Your task to perform on an android device: Open notification settings Image 0: 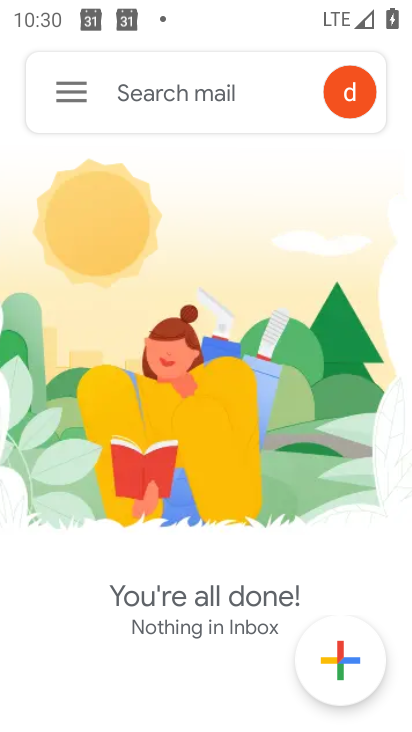
Step 0: press home button
Your task to perform on an android device: Open notification settings Image 1: 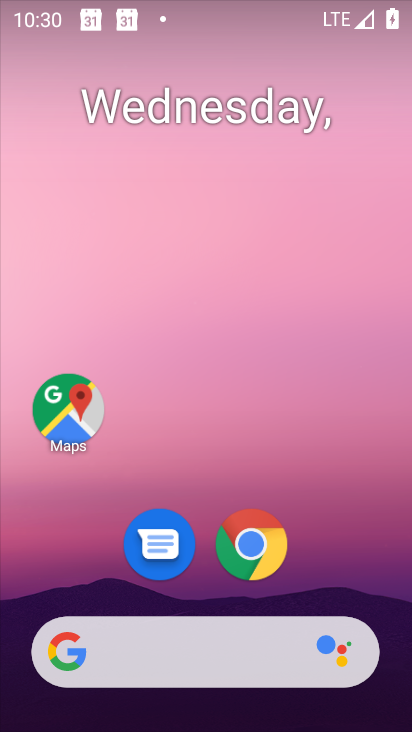
Step 1: drag from (332, 578) to (346, 145)
Your task to perform on an android device: Open notification settings Image 2: 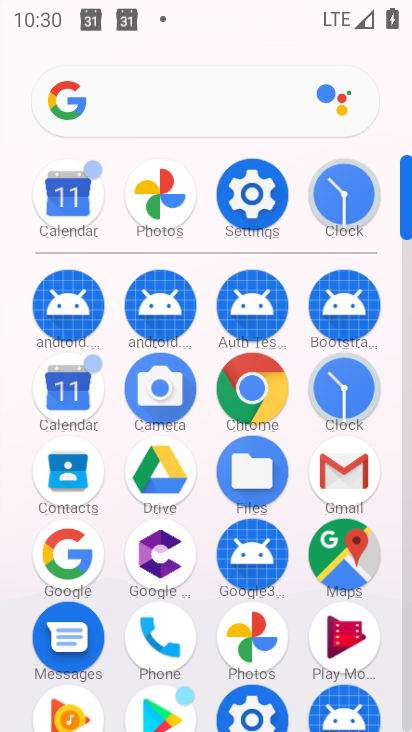
Step 2: click (240, 209)
Your task to perform on an android device: Open notification settings Image 3: 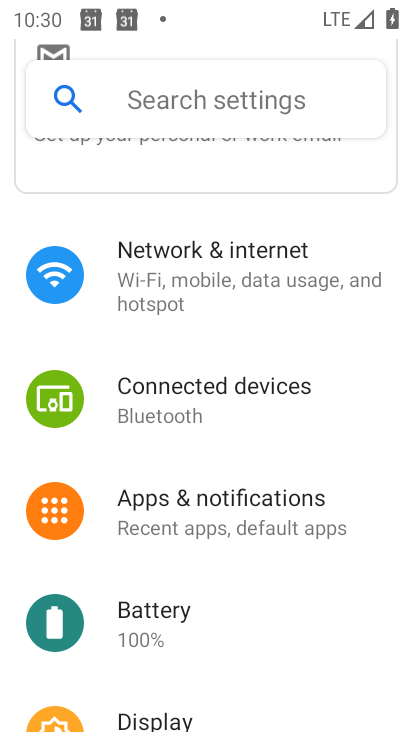
Step 3: click (128, 506)
Your task to perform on an android device: Open notification settings Image 4: 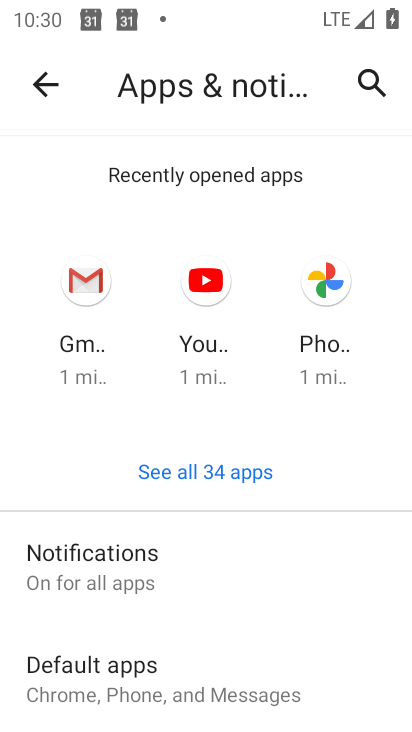
Step 4: task complete